Your task to perform on an android device: turn on showing notifications on the lock screen Image 0: 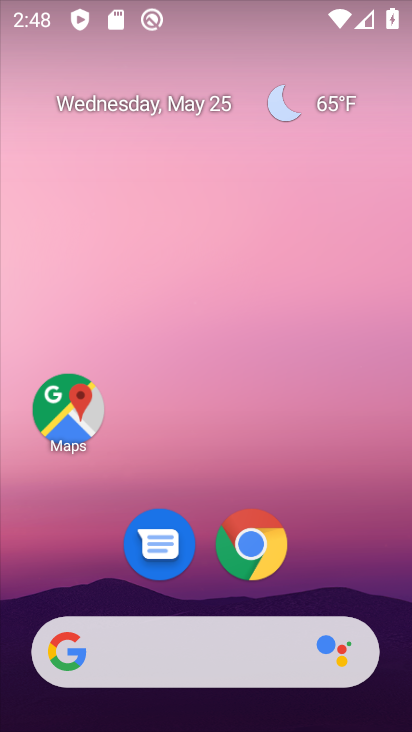
Step 0: drag from (378, 565) to (323, 152)
Your task to perform on an android device: turn on showing notifications on the lock screen Image 1: 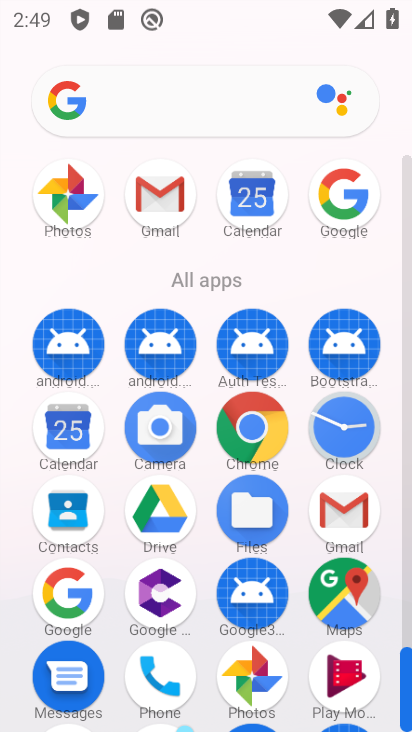
Step 1: drag from (394, 618) to (382, 452)
Your task to perform on an android device: turn on showing notifications on the lock screen Image 2: 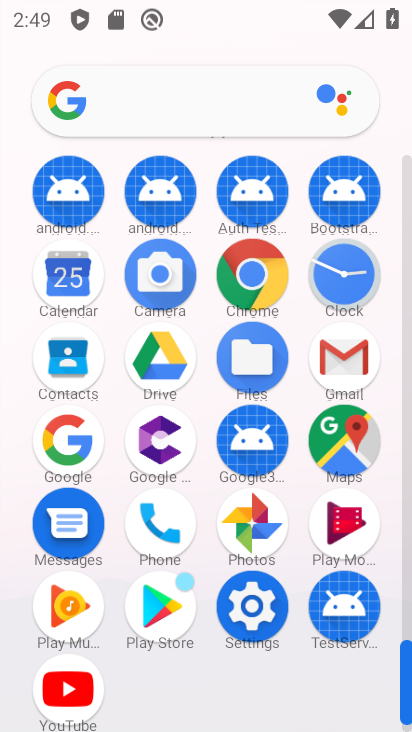
Step 2: click (244, 624)
Your task to perform on an android device: turn on showing notifications on the lock screen Image 3: 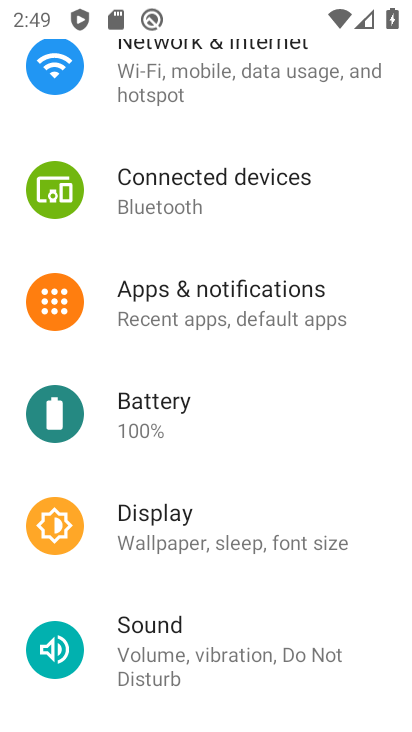
Step 3: click (239, 307)
Your task to perform on an android device: turn on showing notifications on the lock screen Image 4: 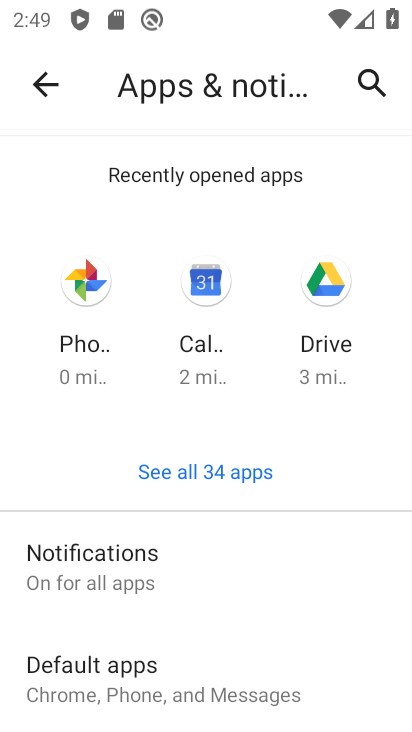
Step 4: click (230, 550)
Your task to perform on an android device: turn on showing notifications on the lock screen Image 5: 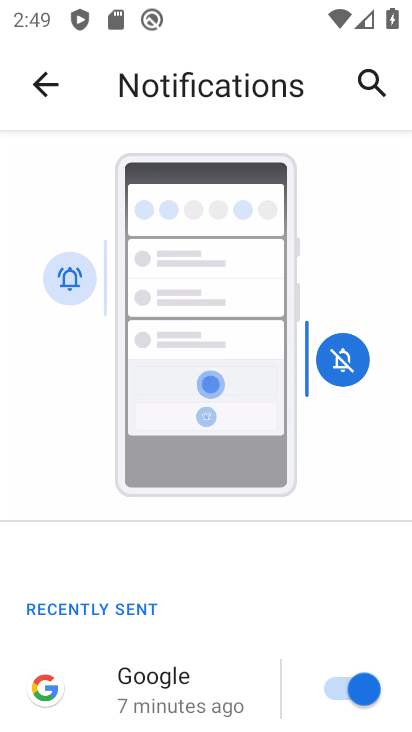
Step 5: drag from (235, 575) to (186, 119)
Your task to perform on an android device: turn on showing notifications on the lock screen Image 6: 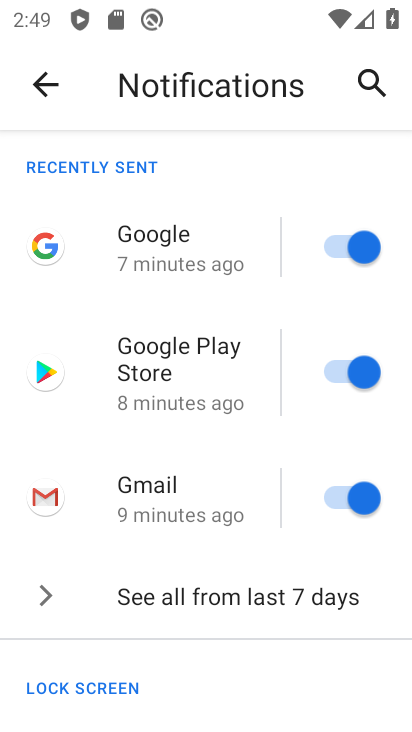
Step 6: drag from (240, 666) to (193, 266)
Your task to perform on an android device: turn on showing notifications on the lock screen Image 7: 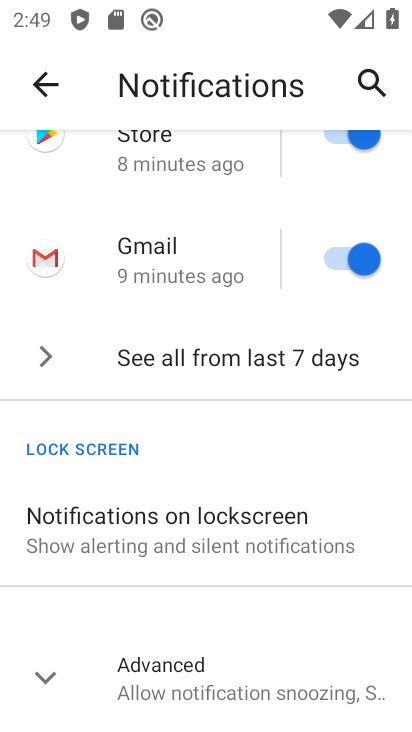
Step 7: click (214, 529)
Your task to perform on an android device: turn on showing notifications on the lock screen Image 8: 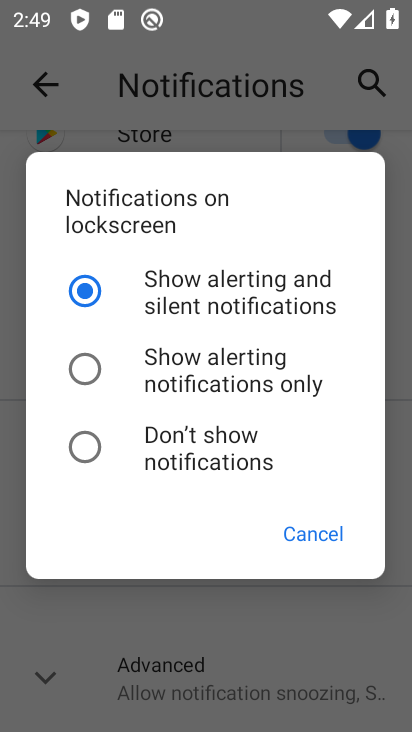
Step 8: task complete